Your task to perform on an android device: toggle location history Image 0: 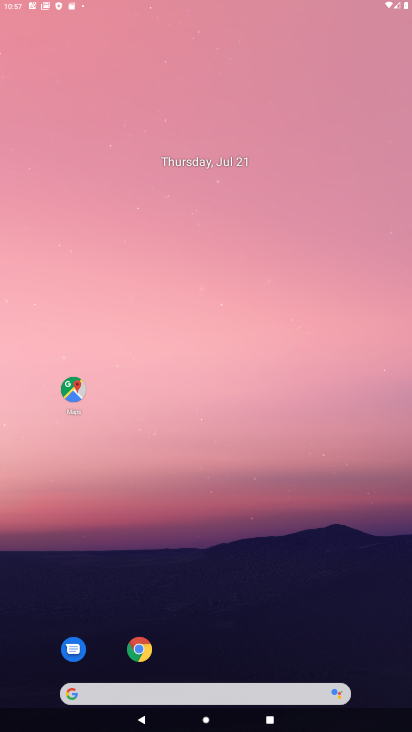
Step 0: drag from (210, 159) to (252, 107)
Your task to perform on an android device: toggle location history Image 1: 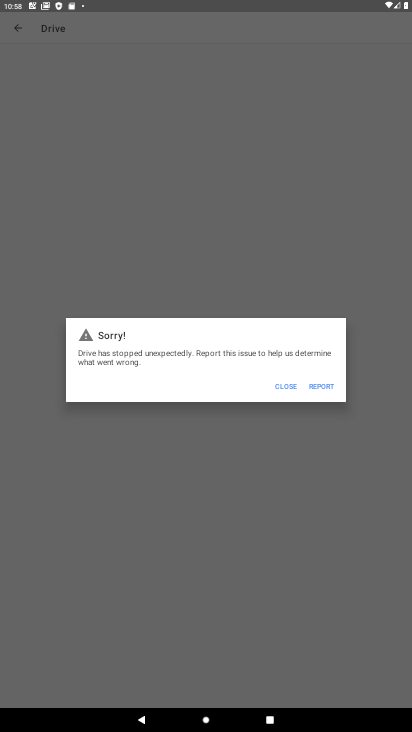
Step 1: press home button
Your task to perform on an android device: toggle location history Image 2: 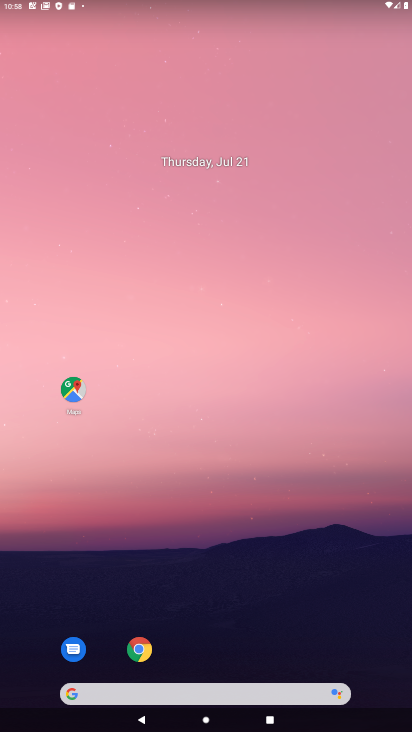
Step 2: drag from (256, 654) to (196, 224)
Your task to perform on an android device: toggle location history Image 3: 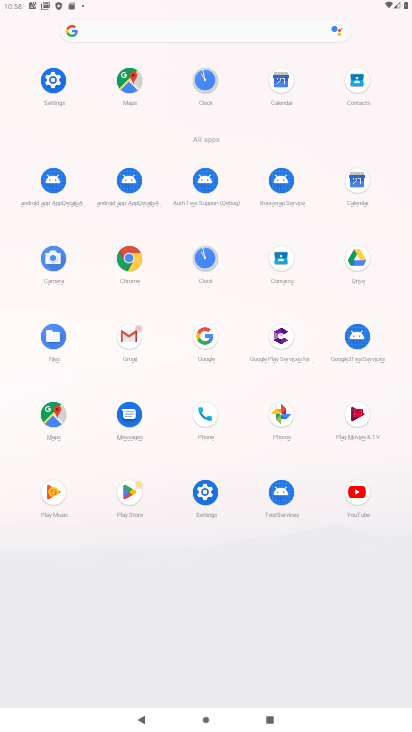
Step 3: click (205, 490)
Your task to perform on an android device: toggle location history Image 4: 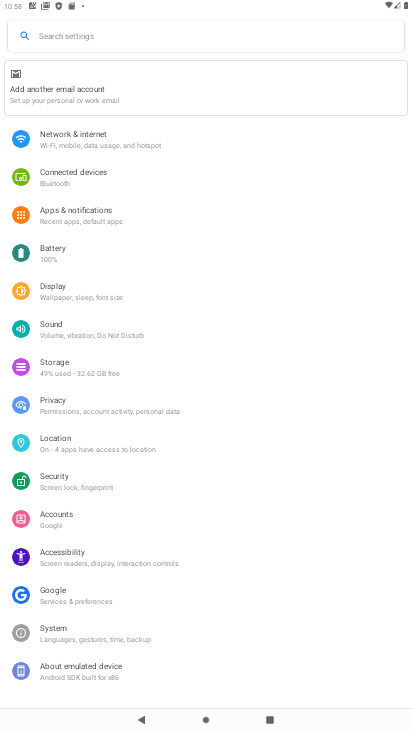
Step 4: click (106, 449)
Your task to perform on an android device: toggle location history Image 5: 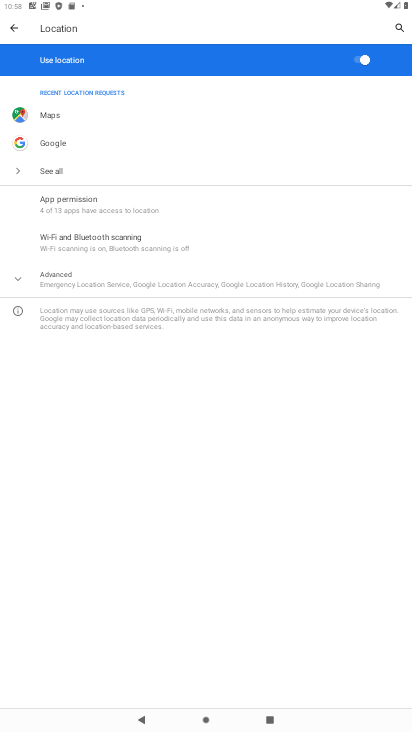
Step 5: click (189, 279)
Your task to perform on an android device: toggle location history Image 6: 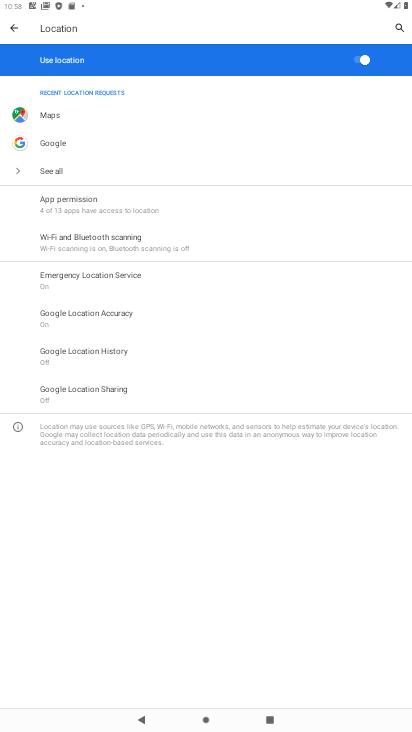
Step 6: click (126, 360)
Your task to perform on an android device: toggle location history Image 7: 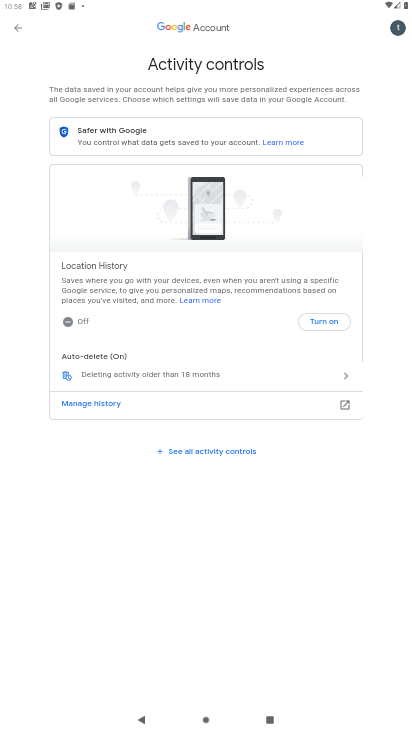
Step 7: click (326, 325)
Your task to perform on an android device: toggle location history Image 8: 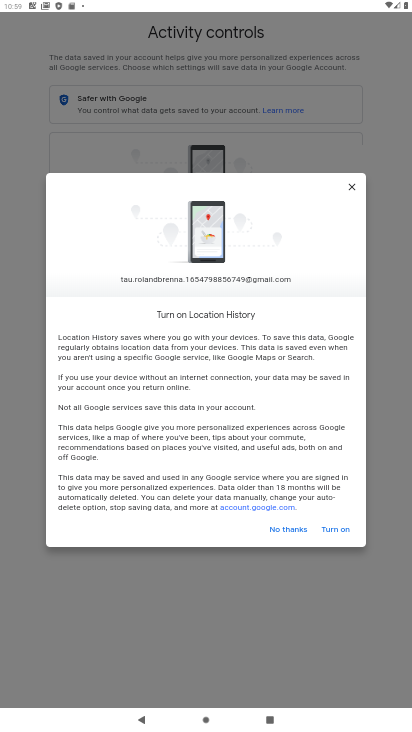
Step 8: click (337, 525)
Your task to perform on an android device: toggle location history Image 9: 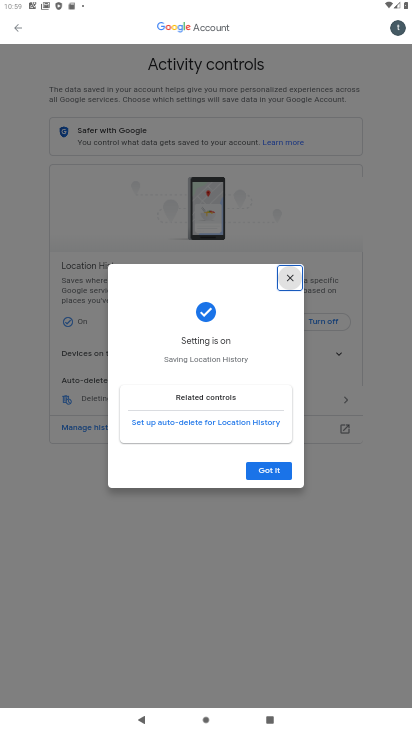
Step 9: task complete